Your task to perform on an android device: Open location settings Image 0: 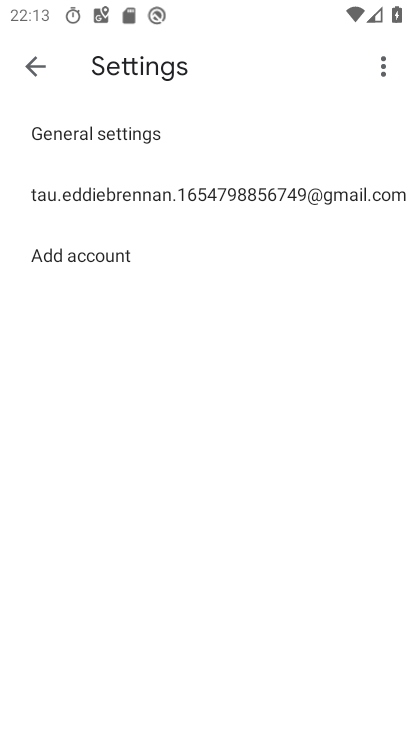
Step 0: press home button
Your task to perform on an android device: Open location settings Image 1: 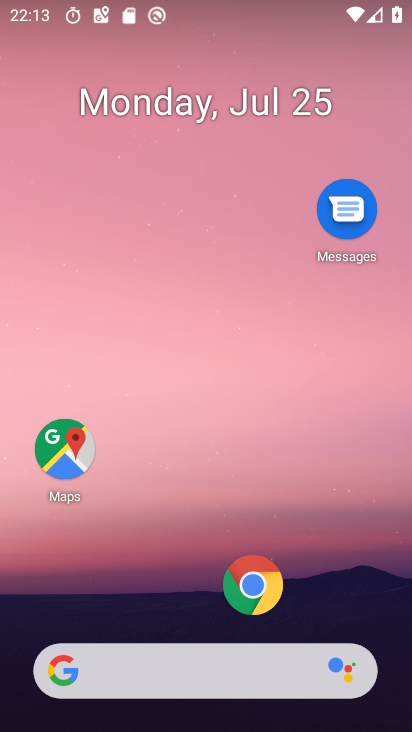
Step 1: drag from (189, 683) to (305, 69)
Your task to perform on an android device: Open location settings Image 2: 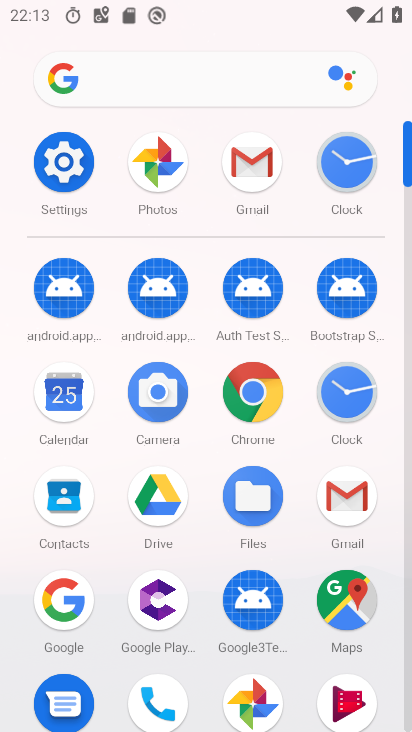
Step 2: click (61, 160)
Your task to perform on an android device: Open location settings Image 3: 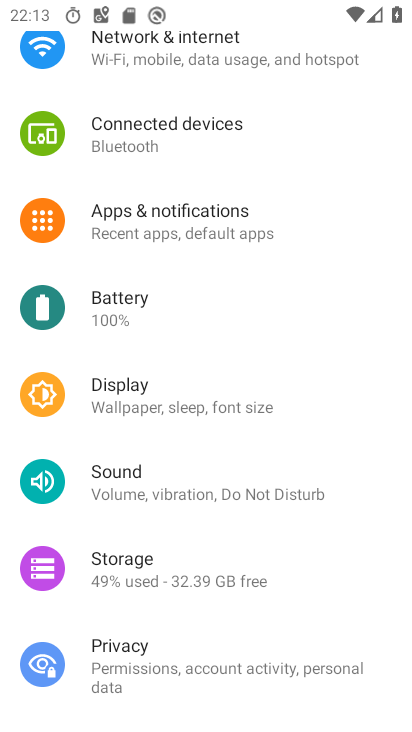
Step 3: drag from (221, 549) to (293, 126)
Your task to perform on an android device: Open location settings Image 4: 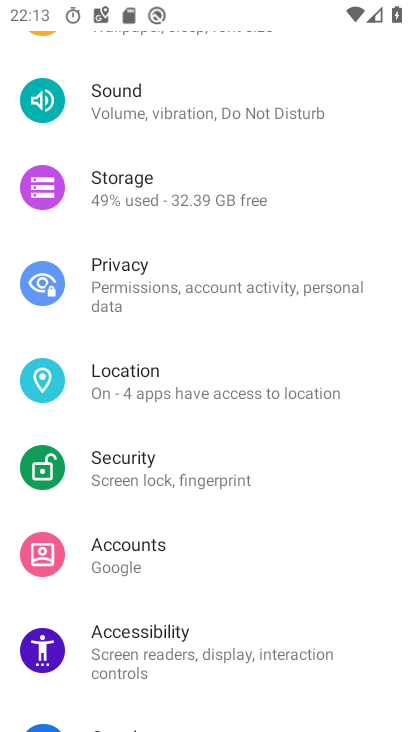
Step 4: click (159, 376)
Your task to perform on an android device: Open location settings Image 5: 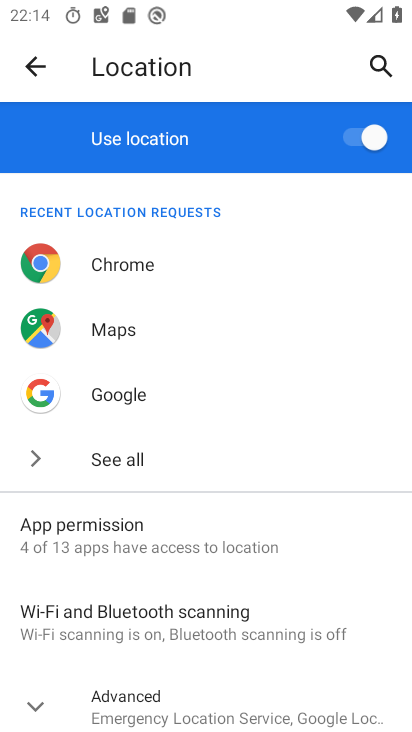
Step 5: task complete